Your task to perform on an android device: Show me recent news Image 0: 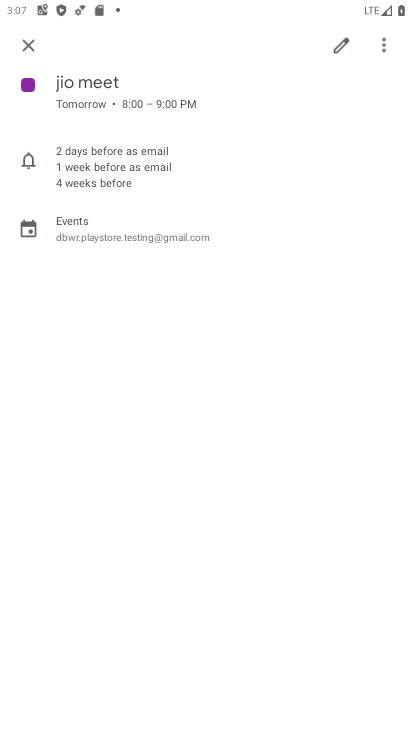
Step 0: press back button
Your task to perform on an android device: Show me recent news Image 1: 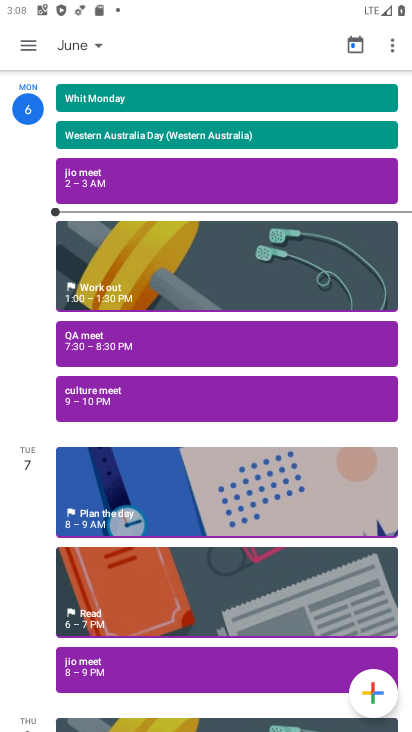
Step 1: press back button
Your task to perform on an android device: Show me recent news Image 2: 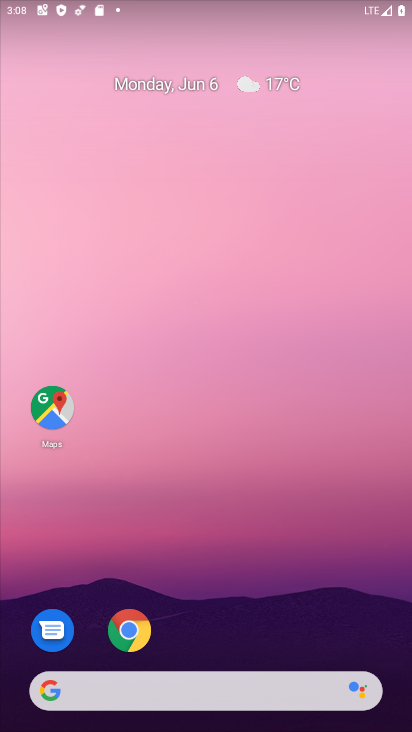
Step 2: click (124, 686)
Your task to perform on an android device: Show me recent news Image 3: 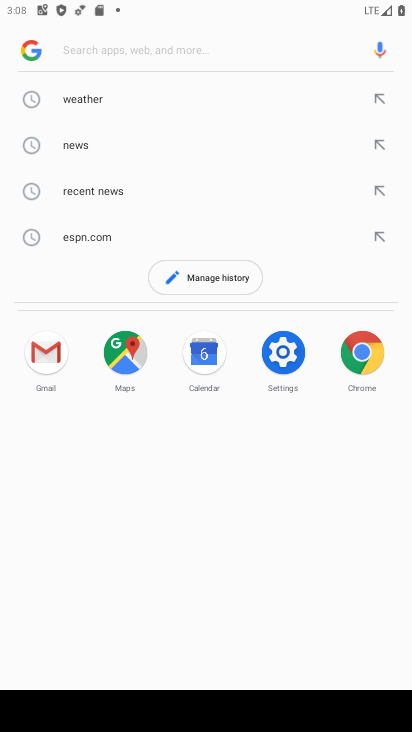
Step 3: click (107, 191)
Your task to perform on an android device: Show me recent news Image 4: 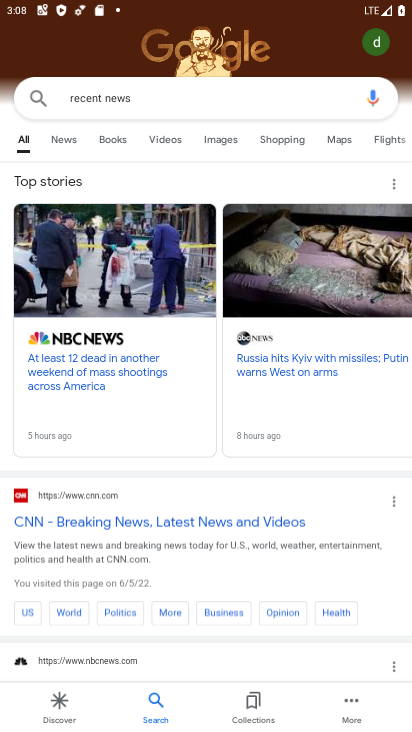
Step 4: task complete